Your task to perform on an android device: refresh tabs in the chrome app Image 0: 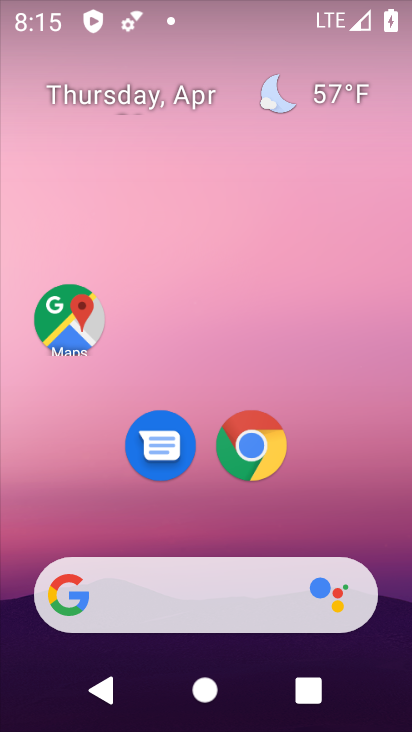
Step 0: click (257, 445)
Your task to perform on an android device: refresh tabs in the chrome app Image 1: 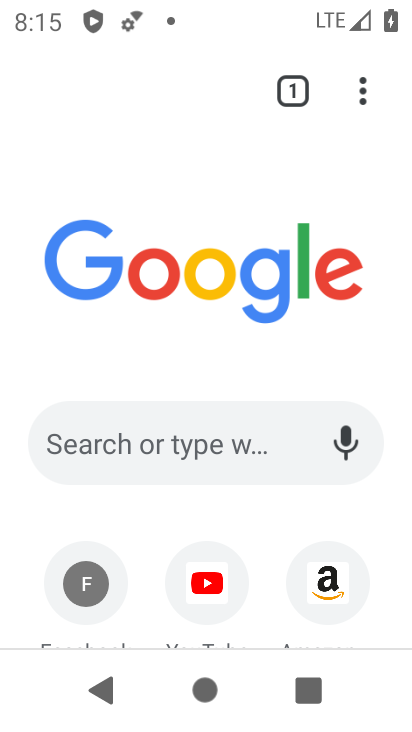
Step 1: click (362, 96)
Your task to perform on an android device: refresh tabs in the chrome app Image 2: 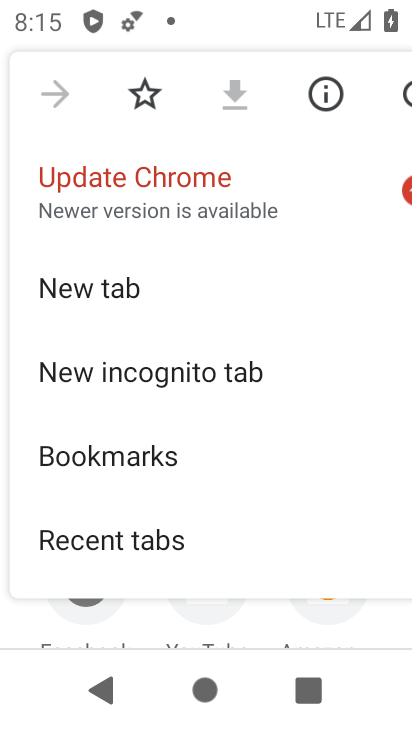
Step 2: click (405, 94)
Your task to perform on an android device: refresh tabs in the chrome app Image 3: 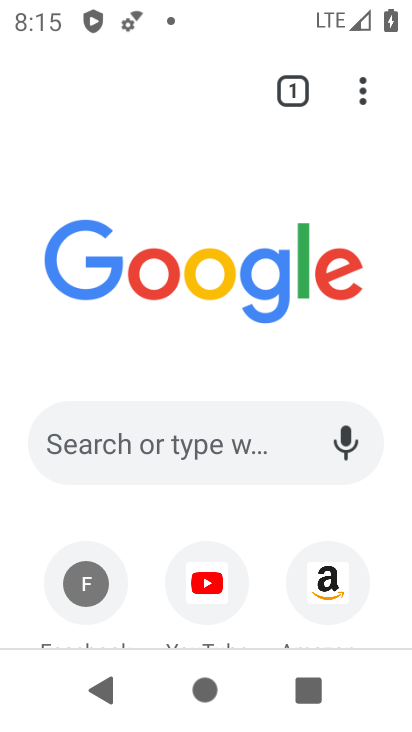
Step 3: task complete